Your task to perform on an android device: View the shopping cart on costco. Add logitech g502 to the cart on costco Image 0: 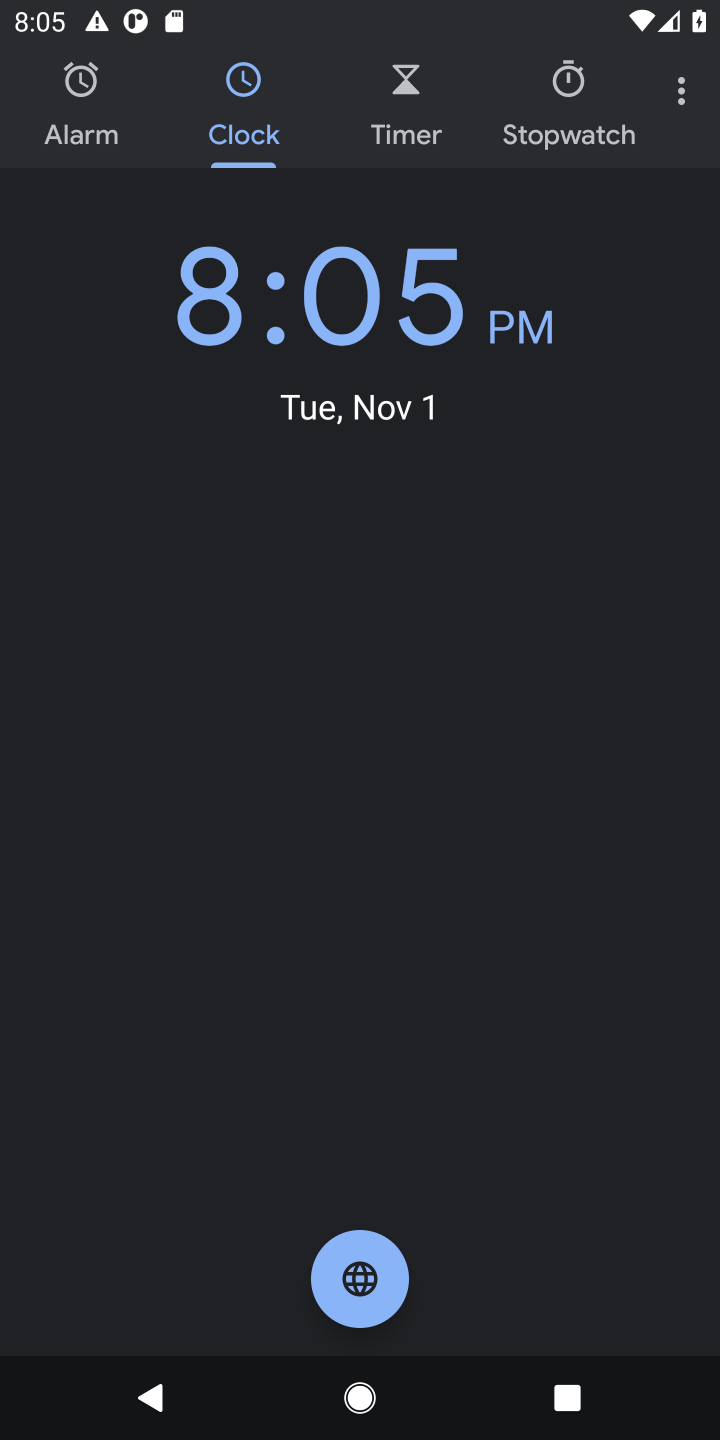
Step 0: press home button
Your task to perform on an android device: View the shopping cart on costco. Add logitech g502 to the cart on costco Image 1: 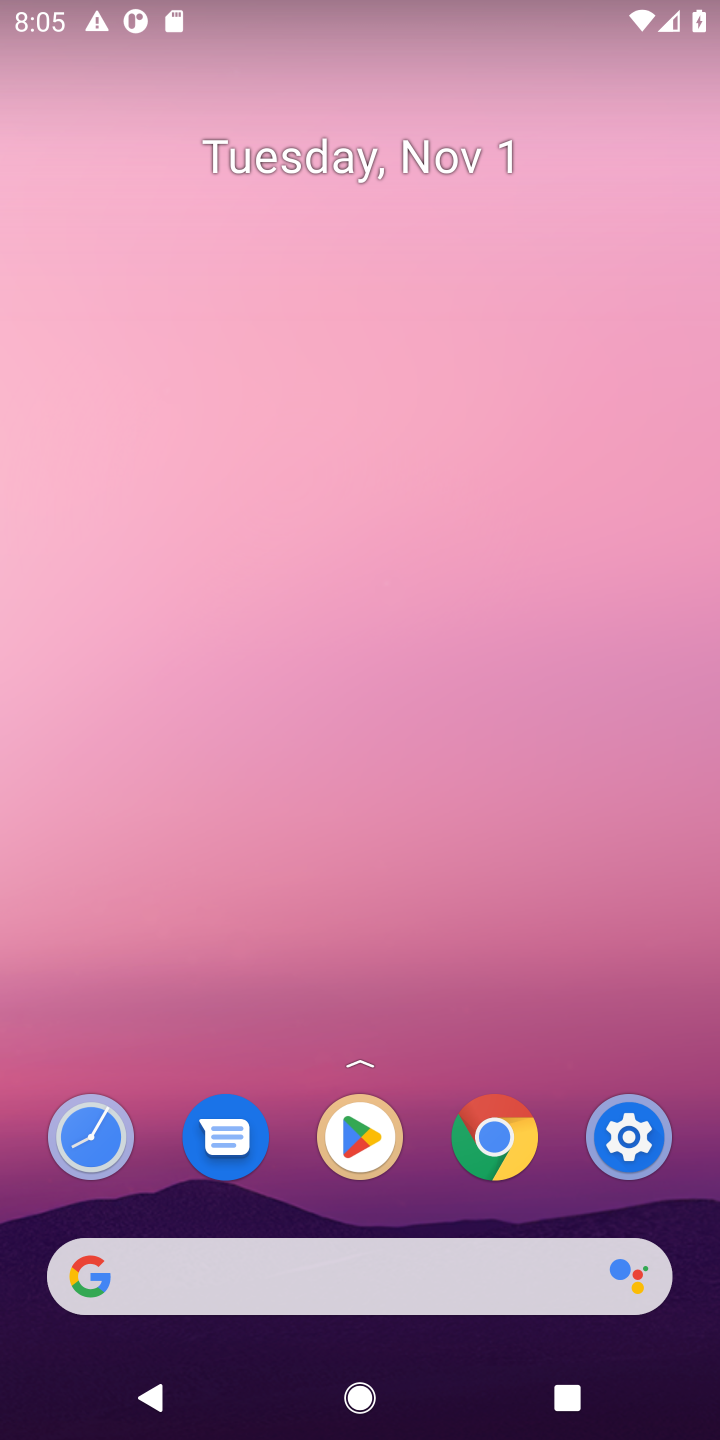
Step 1: click (257, 1271)
Your task to perform on an android device: View the shopping cart on costco. Add logitech g502 to the cart on costco Image 2: 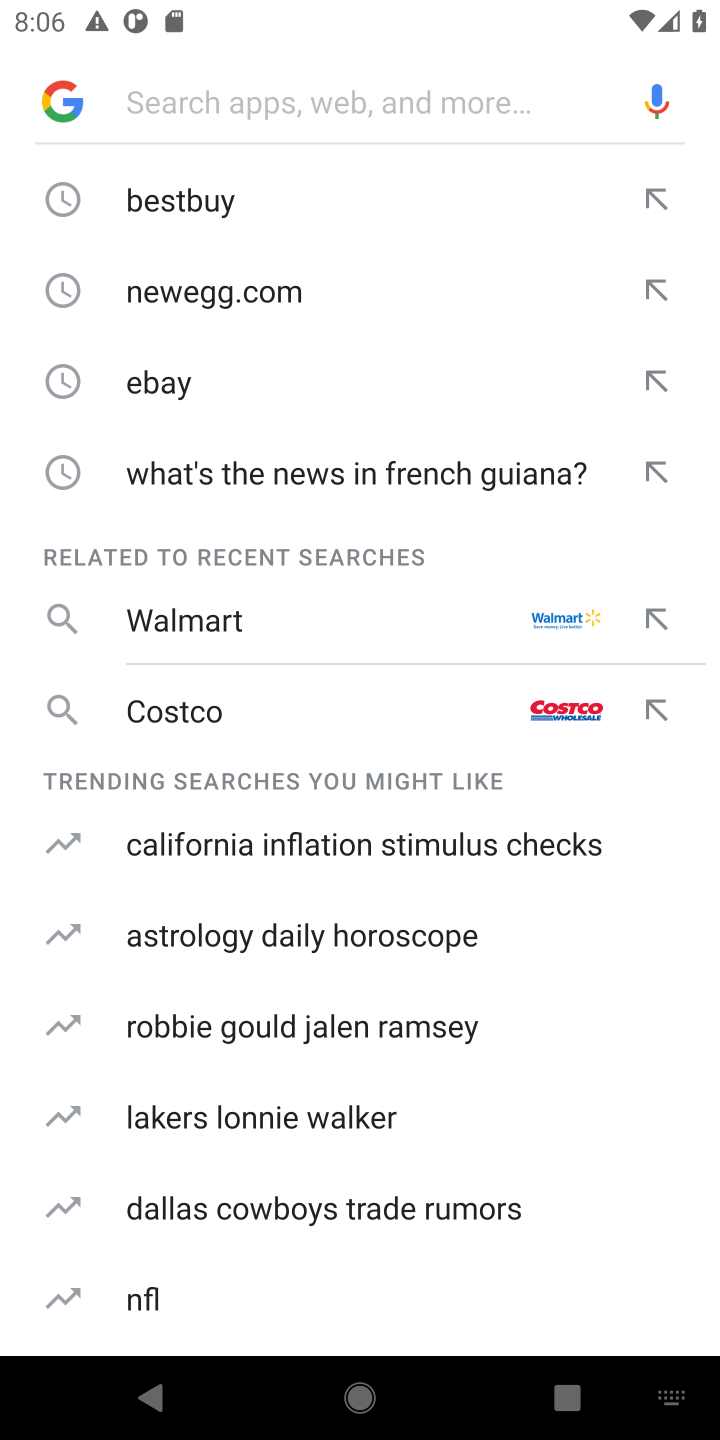
Step 2: type "costco"
Your task to perform on an android device: View the shopping cart on costco. Add logitech g502 to the cart on costco Image 3: 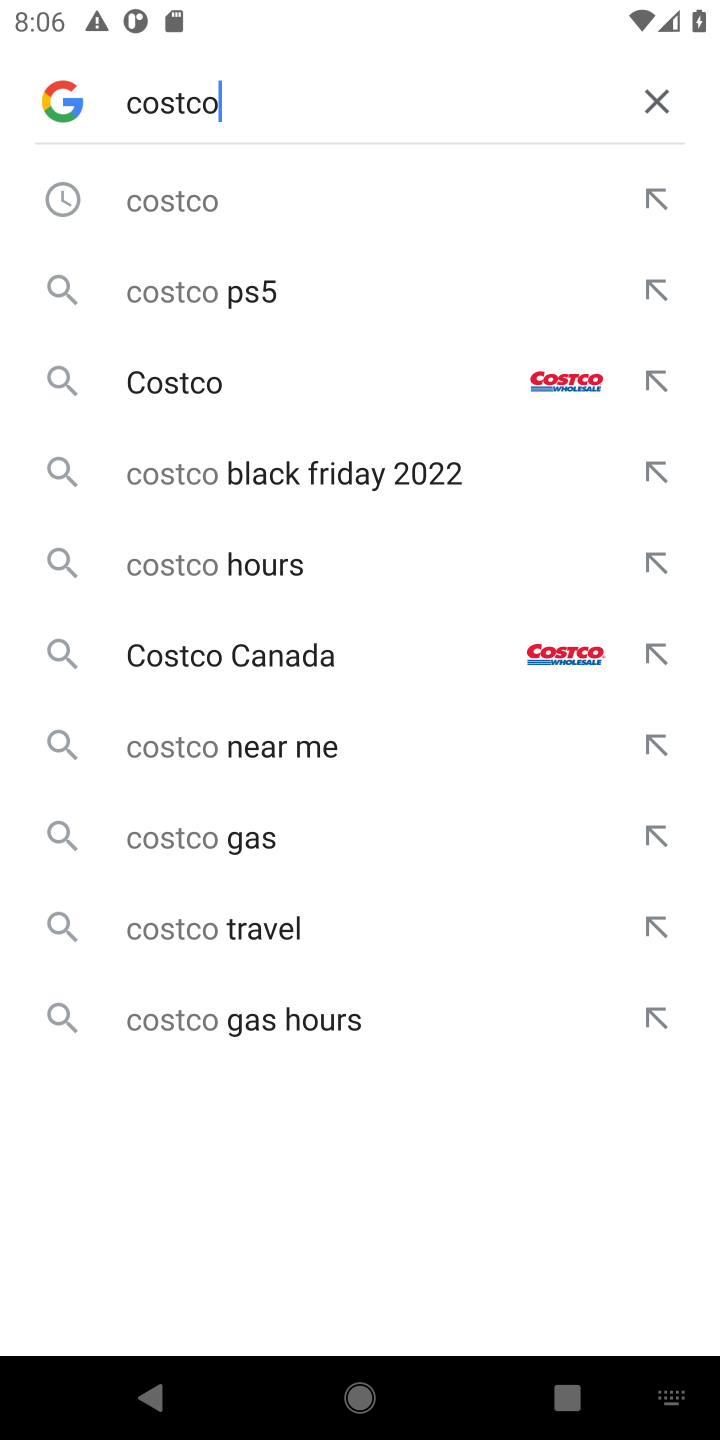
Step 3: click (361, 388)
Your task to perform on an android device: View the shopping cart on costco. Add logitech g502 to the cart on costco Image 4: 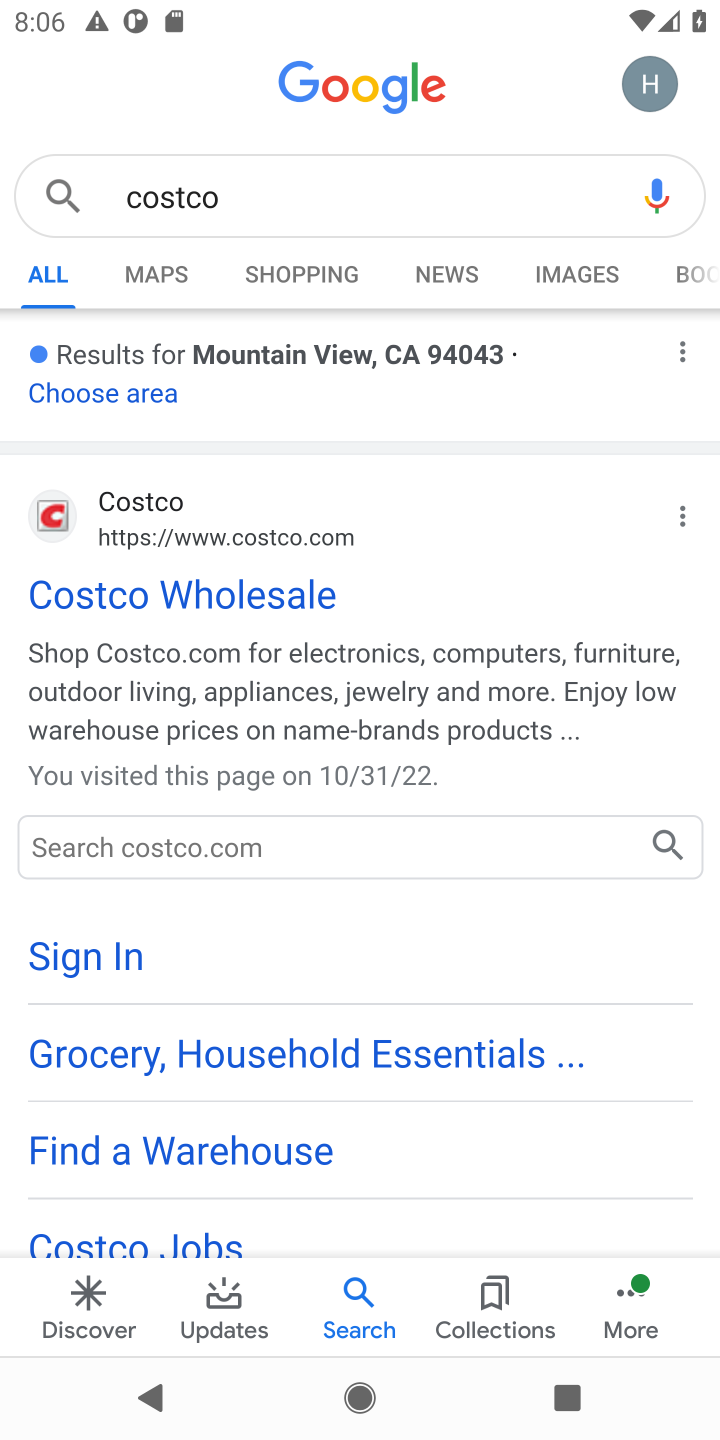
Step 4: click (142, 591)
Your task to perform on an android device: View the shopping cart on costco. Add logitech g502 to the cart on costco Image 5: 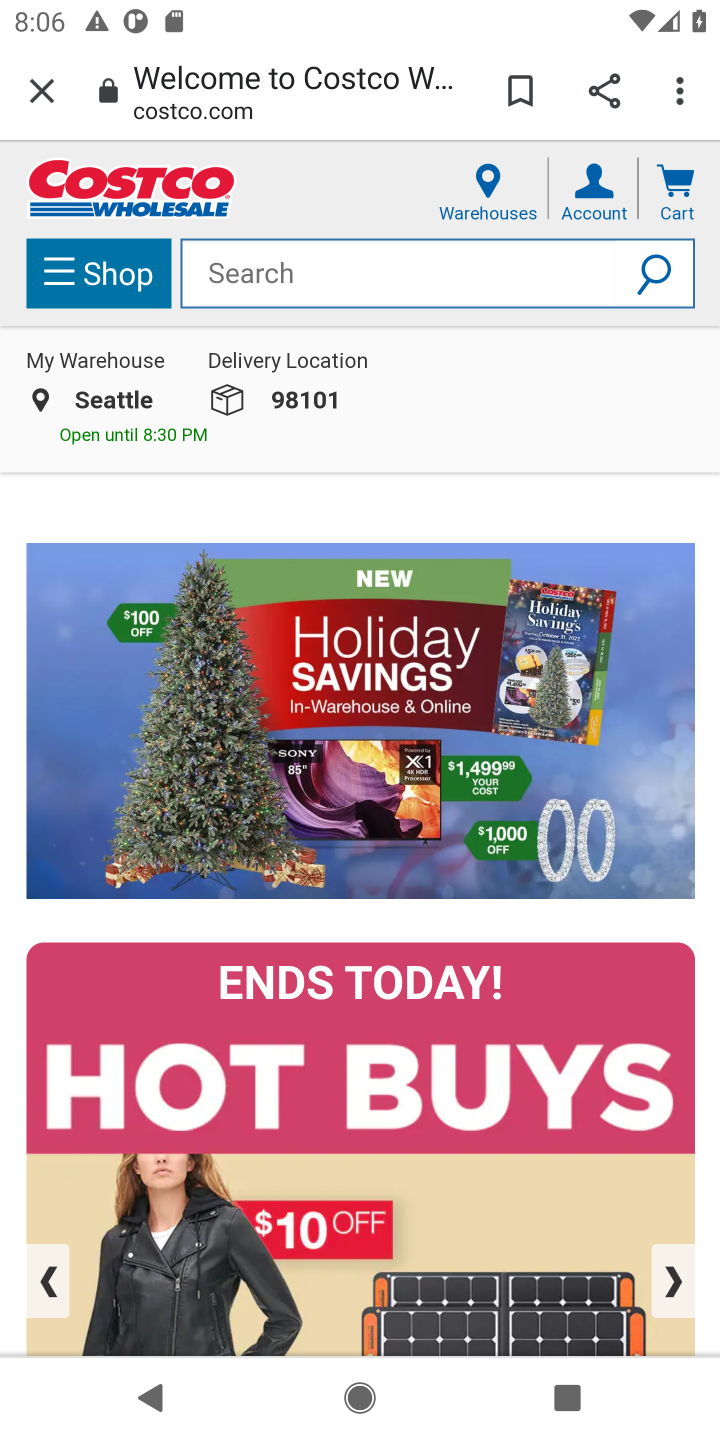
Step 5: click (502, 252)
Your task to perform on an android device: View the shopping cart on costco. Add logitech g502 to the cart on costco Image 6: 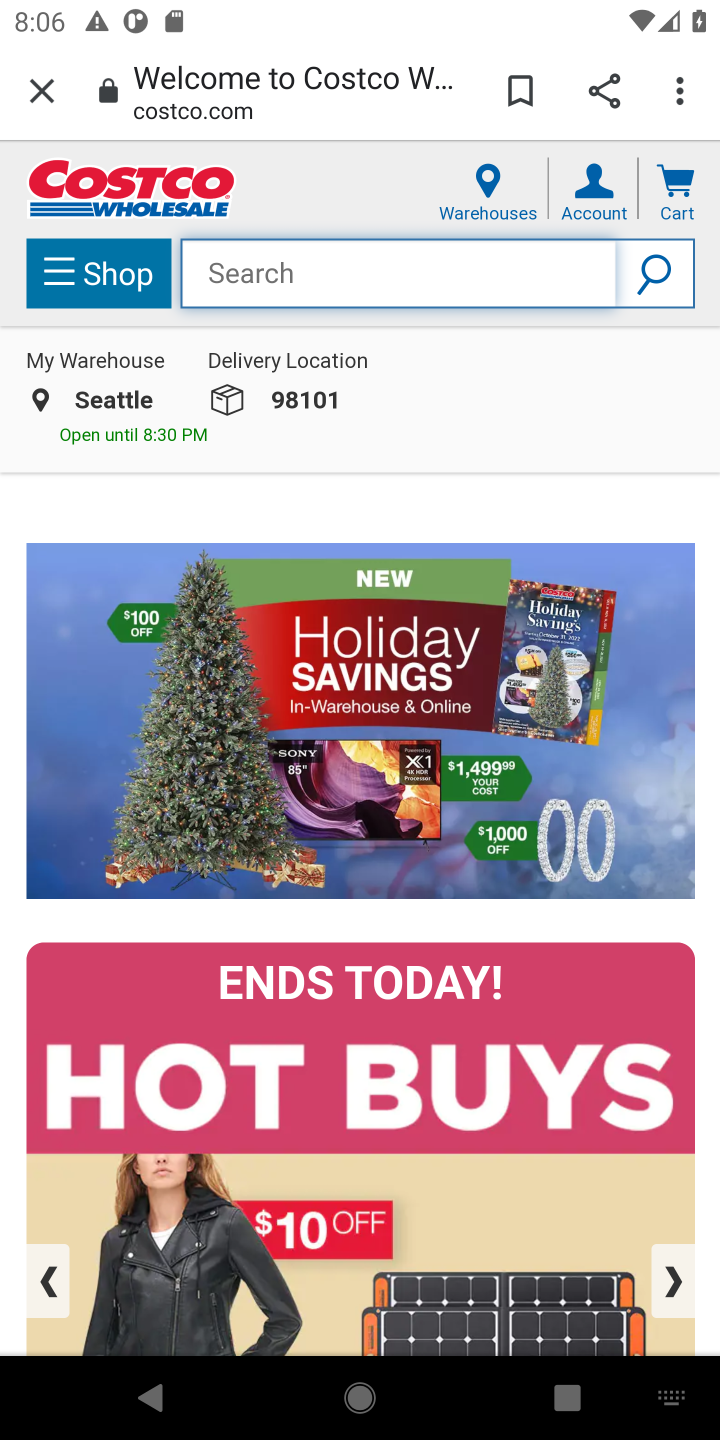
Step 6: type "logitech g502 "
Your task to perform on an android device: View the shopping cart on costco. Add logitech g502 to the cart on costco Image 7: 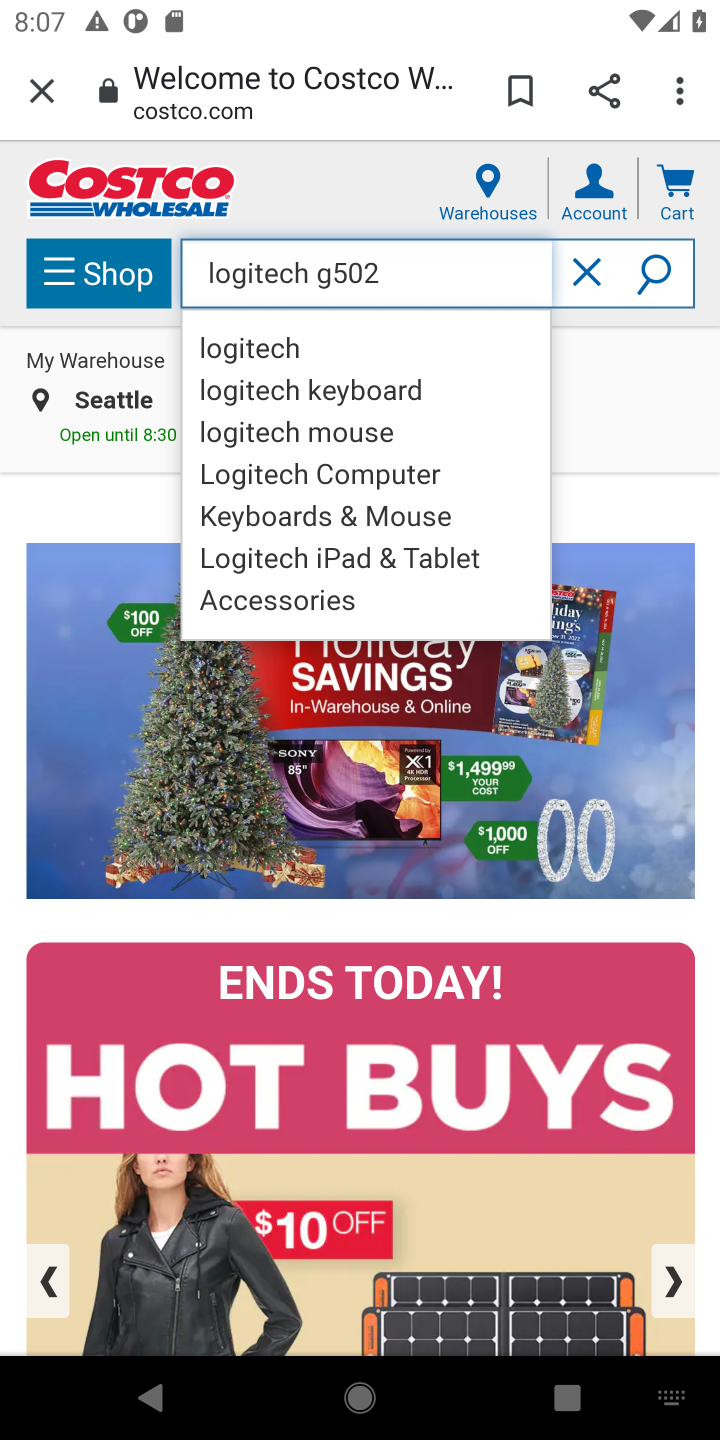
Step 7: click (283, 346)
Your task to perform on an android device: View the shopping cart on costco. Add logitech g502 to the cart on costco Image 8: 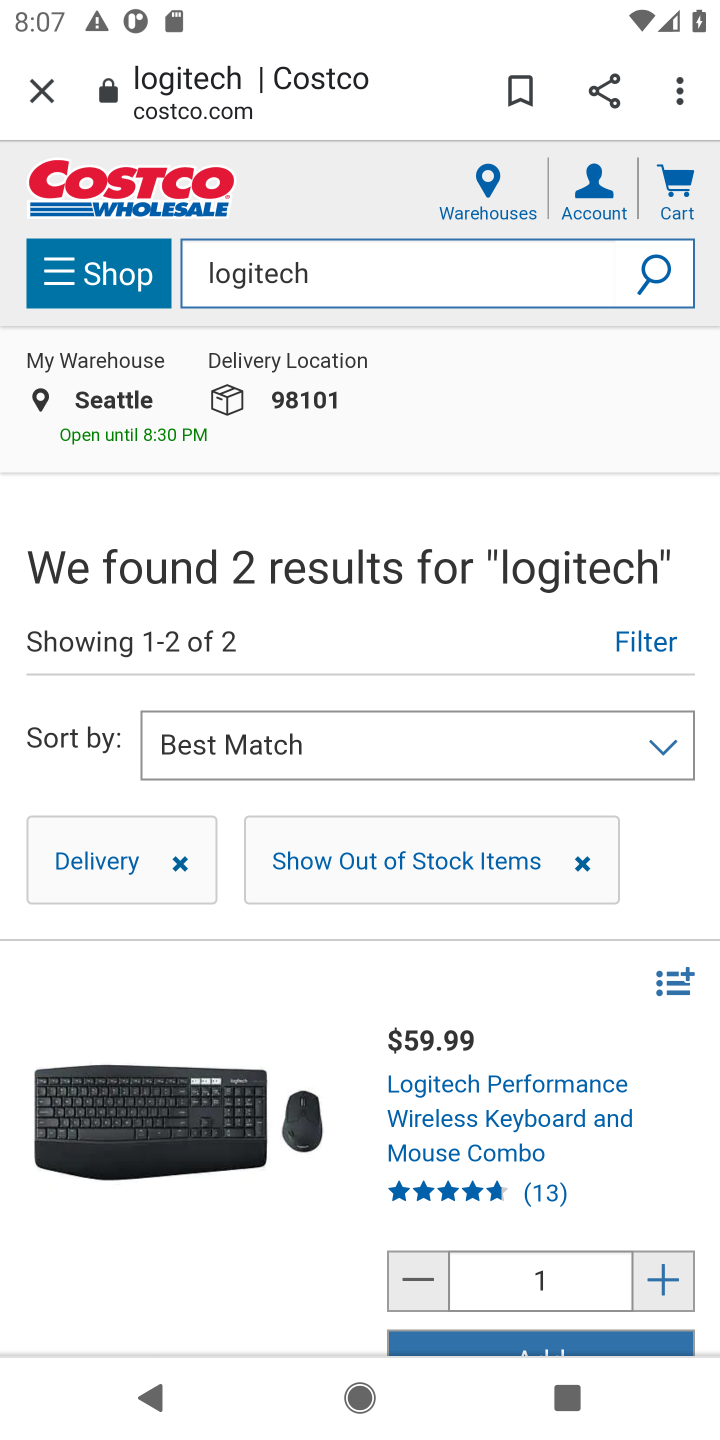
Step 8: task complete